Your task to perform on an android device: Show me popular videos on Youtube Image 0: 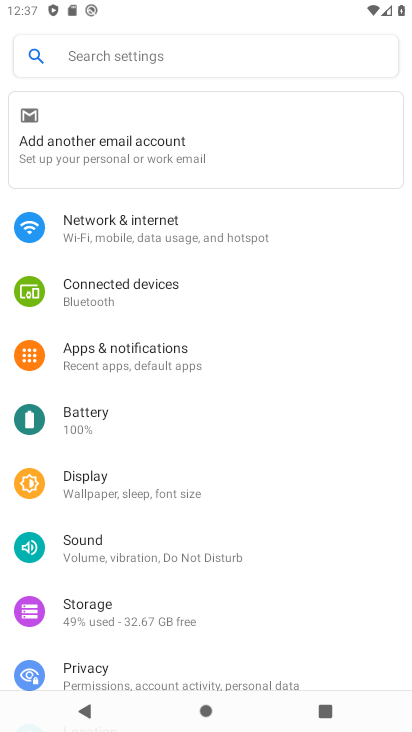
Step 0: press home button
Your task to perform on an android device: Show me popular videos on Youtube Image 1: 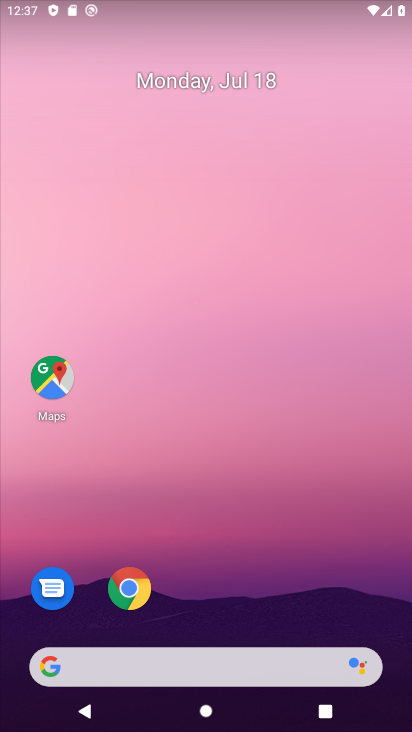
Step 1: drag from (248, 588) to (268, 107)
Your task to perform on an android device: Show me popular videos on Youtube Image 2: 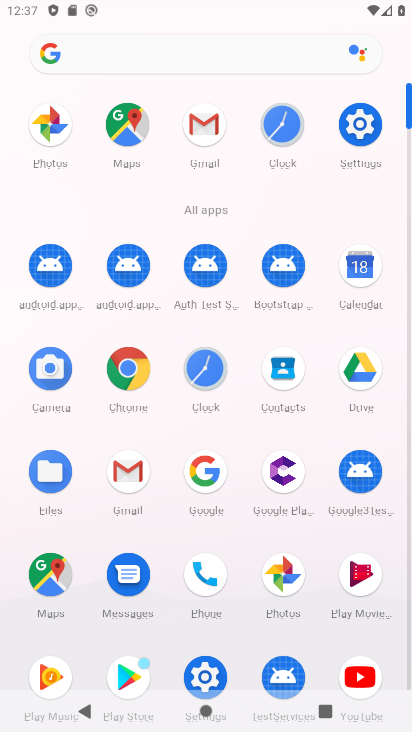
Step 2: click (352, 669)
Your task to perform on an android device: Show me popular videos on Youtube Image 3: 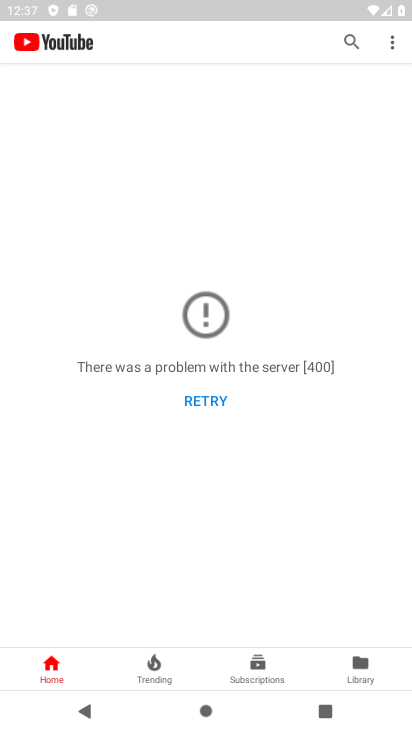
Step 3: click (206, 395)
Your task to perform on an android device: Show me popular videos on Youtube Image 4: 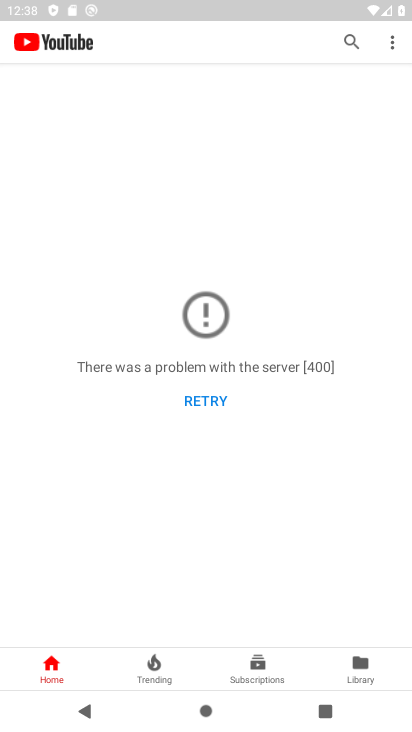
Step 4: click (207, 394)
Your task to perform on an android device: Show me popular videos on Youtube Image 5: 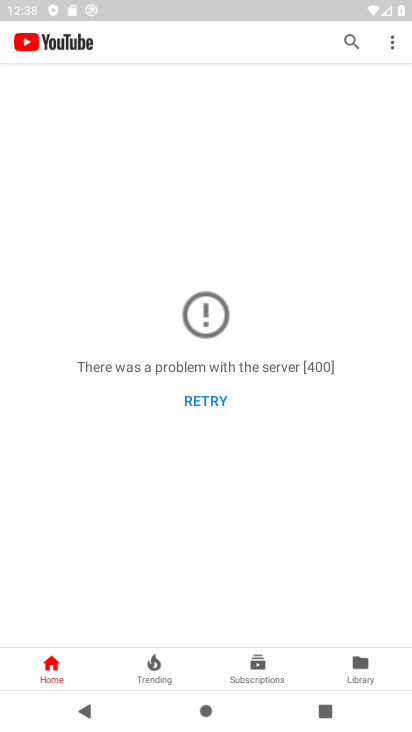
Step 5: task complete